Your task to perform on an android device: Clear all items from cart on walmart.com. Search for alienware aurora on walmart.com, select the first entry, add it to the cart, then select checkout. Image 0: 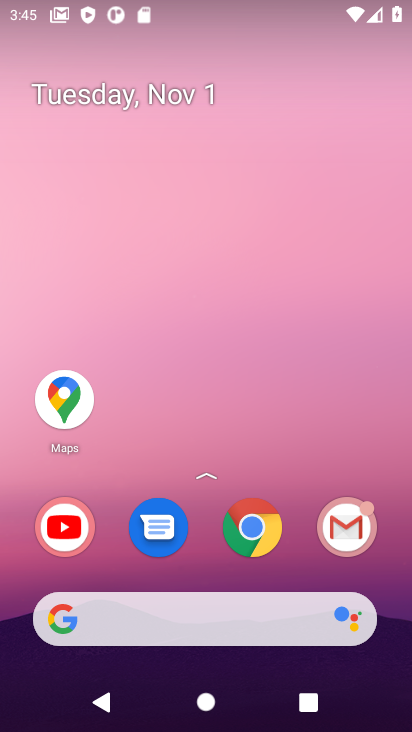
Step 0: click (184, 616)
Your task to perform on an android device: Clear all items from cart on walmart.com. Search for alienware aurora on walmart.com, select the first entry, add it to the cart, then select checkout. Image 1: 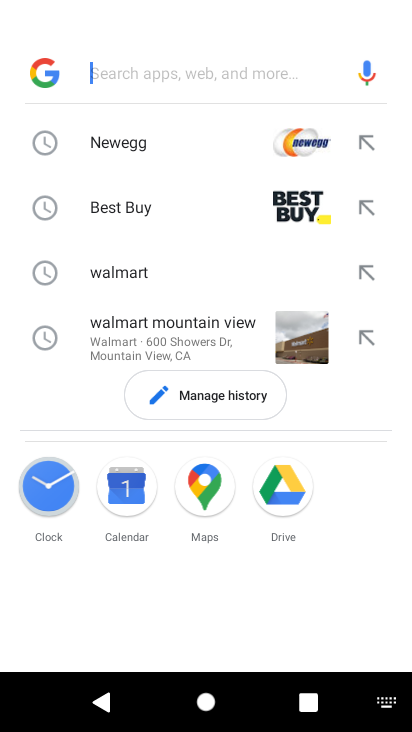
Step 1: click (137, 269)
Your task to perform on an android device: Clear all items from cart on walmart.com. Search for alienware aurora on walmart.com, select the first entry, add it to the cart, then select checkout. Image 2: 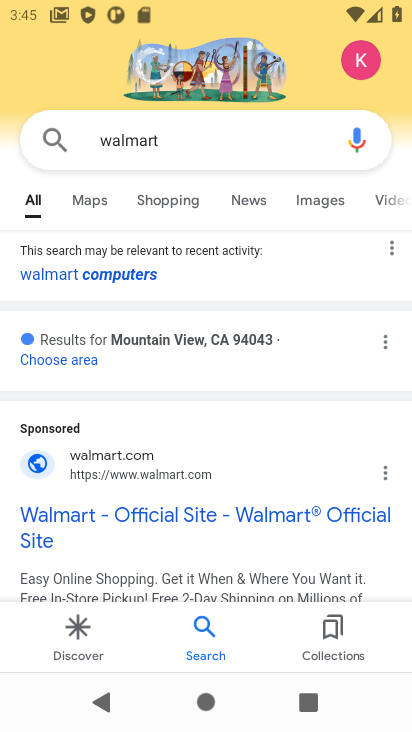
Step 2: click (107, 454)
Your task to perform on an android device: Clear all items from cart on walmart.com. Search for alienware aurora on walmart.com, select the first entry, add it to the cart, then select checkout. Image 3: 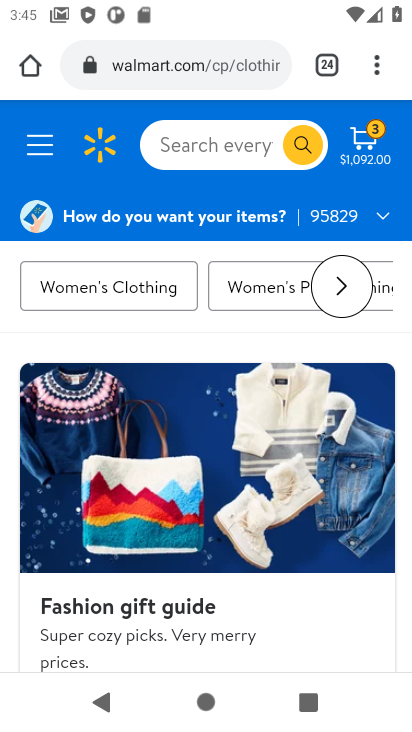
Step 3: click (208, 141)
Your task to perform on an android device: Clear all items from cart on walmart.com. Search for alienware aurora on walmart.com, select the first entry, add it to the cart, then select checkout. Image 4: 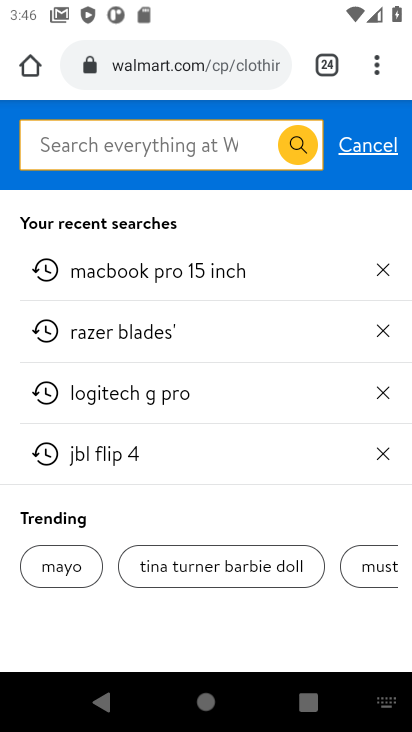
Step 4: type "alienware aurora"
Your task to perform on an android device: Clear all items from cart on walmart.com. Search for alienware aurora on walmart.com, select the first entry, add it to the cart, then select checkout. Image 5: 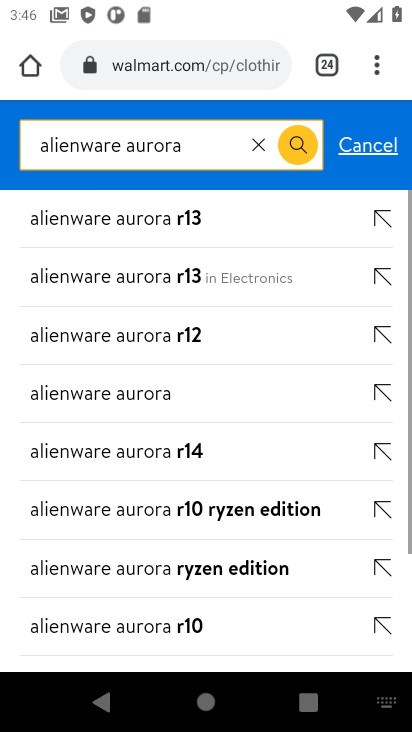
Step 5: click (127, 393)
Your task to perform on an android device: Clear all items from cart on walmart.com. Search for alienware aurora on walmart.com, select the first entry, add it to the cart, then select checkout. Image 6: 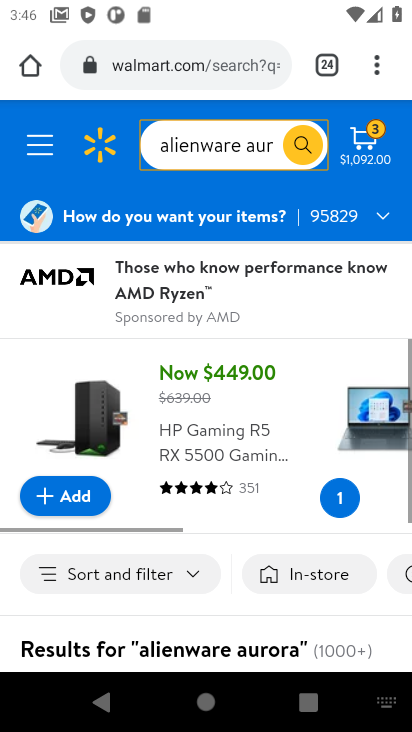
Step 6: click (40, 494)
Your task to perform on an android device: Clear all items from cart on walmart.com. Search for alienware aurora on walmart.com, select the first entry, add it to the cart, then select checkout. Image 7: 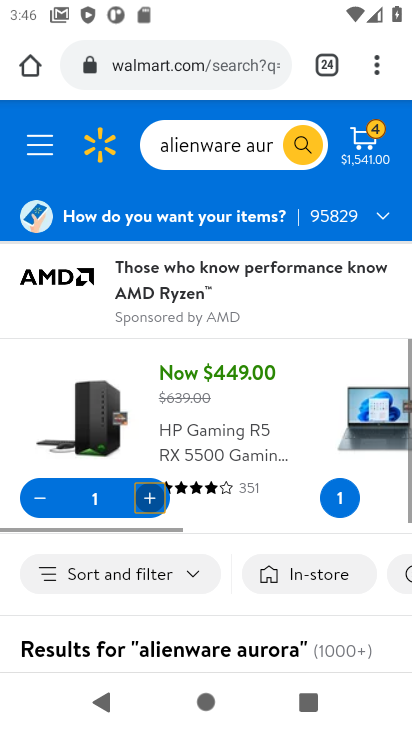
Step 7: click (368, 146)
Your task to perform on an android device: Clear all items from cart on walmart.com. Search for alienware aurora on walmart.com, select the first entry, add it to the cart, then select checkout. Image 8: 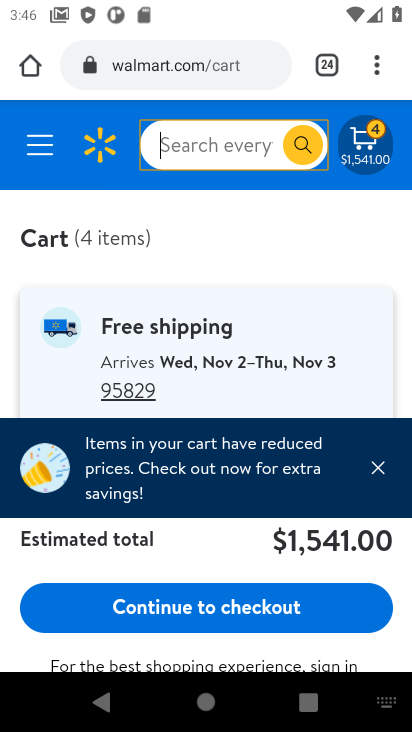
Step 8: click (363, 151)
Your task to perform on an android device: Clear all items from cart on walmart.com. Search for alienware aurora on walmart.com, select the first entry, add it to the cart, then select checkout. Image 9: 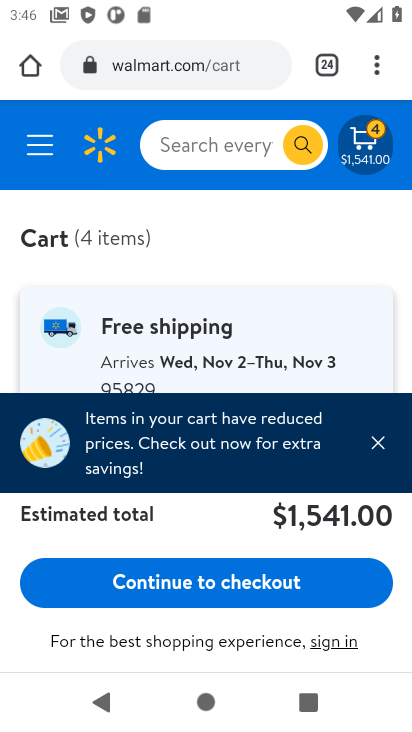
Step 9: click (206, 586)
Your task to perform on an android device: Clear all items from cart on walmart.com. Search for alienware aurora on walmart.com, select the first entry, add it to the cart, then select checkout. Image 10: 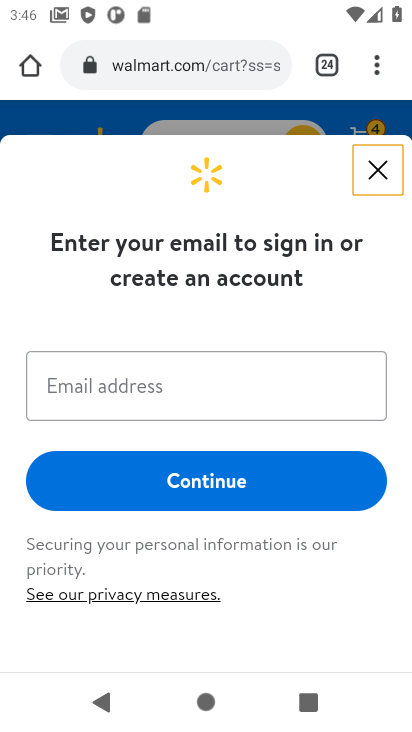
Step 10: task complete